Your task to perform on an android device: open app "HBO Max: Stream TV & Movies" Image 0: 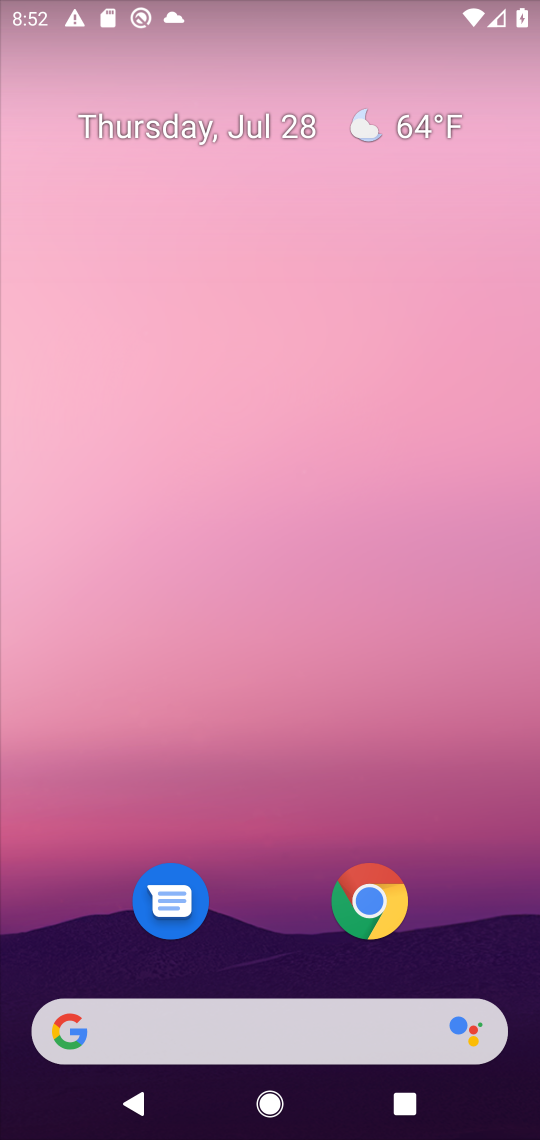
Step 0: drag from (484, 743) to (8, 664)
Your task to perform on an android device: open app "HBO Max: Stream TV & Movies" Image 1: 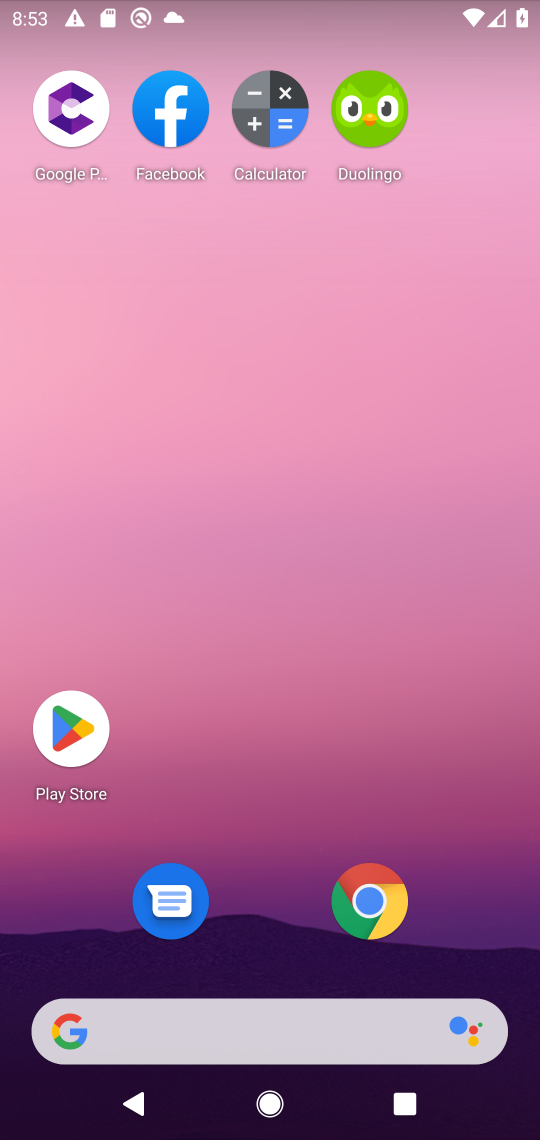
Step 1: task complete